Your task to perform on an android device: Go to location settings Image 0: 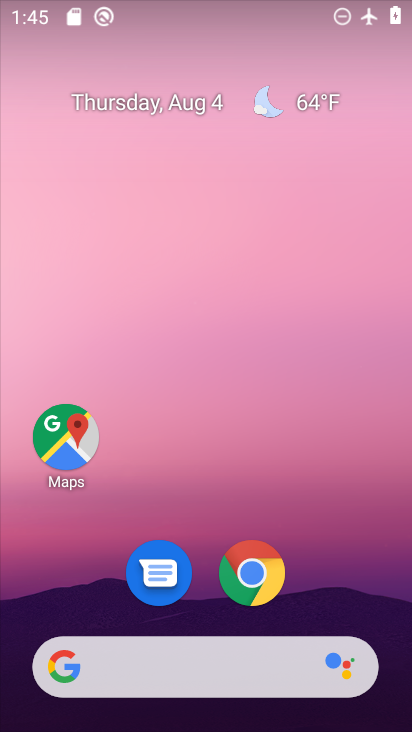
Step 0: drag from (325, 558) to (294, 160)
Your task to perform on an android device: Go to location settings Image 1: 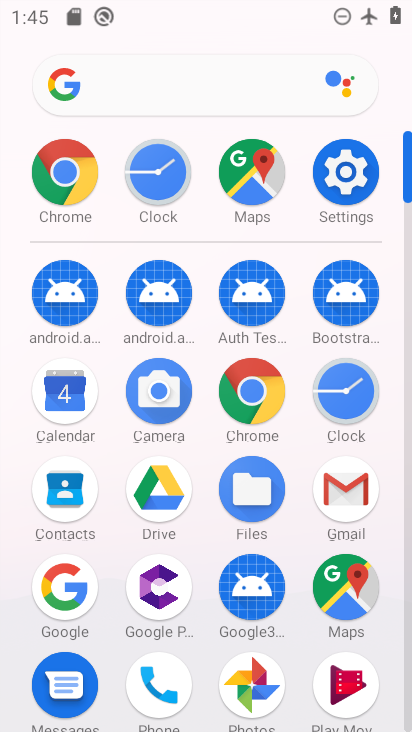
Step 1: click (358, 172)
Your task to perform on an android device: Go to location settings Image 2: 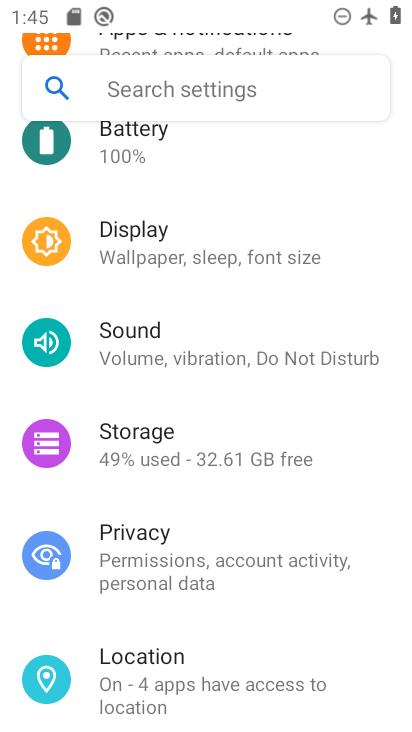
Step 2: click (156, 679)
Your task to perform on an android device: Go to location settings Image 3: 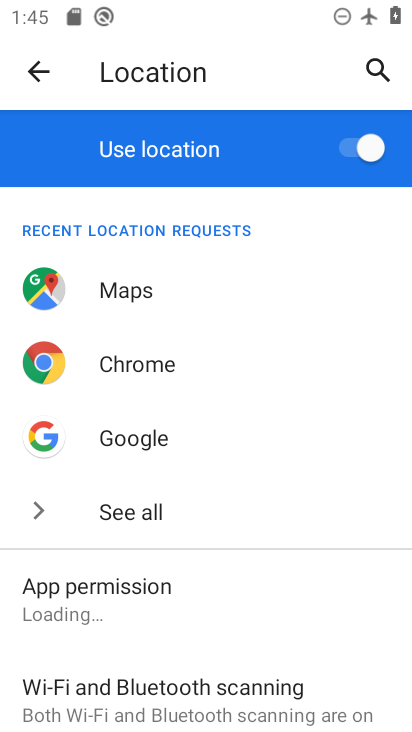
Step 3: task complete